Your task to perform on an android device: Open the calendar and show me this week's events? Image 0: 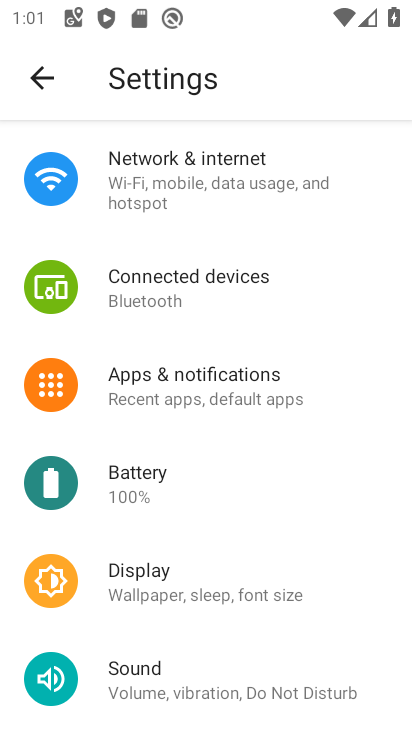
Step 0: press home button
Your task to perform on an android device: Open the calendar and show me this week's events? Image 1: 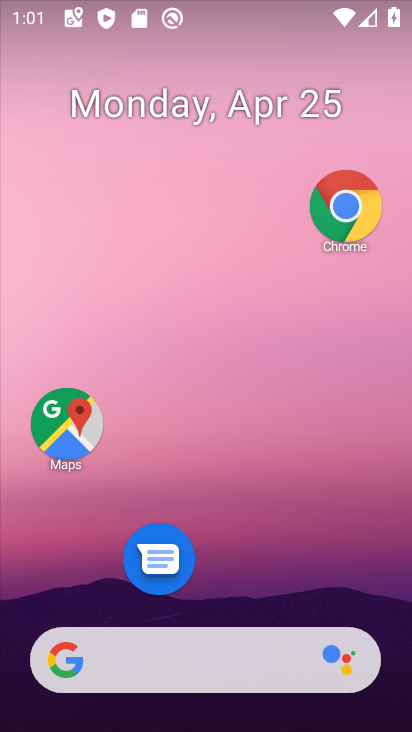
Step 1: drag from (247, 515) to (320, 64)
Your task to perform on an android device: Open the calendar and show me this week's events? Image 2: 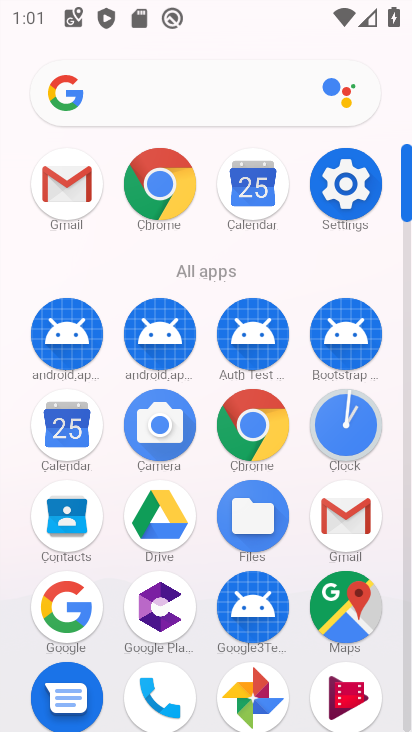
Step 2: click (63, 430)
Your task to perform on an android device: Open the calendar and show me this week's events? Image 3: 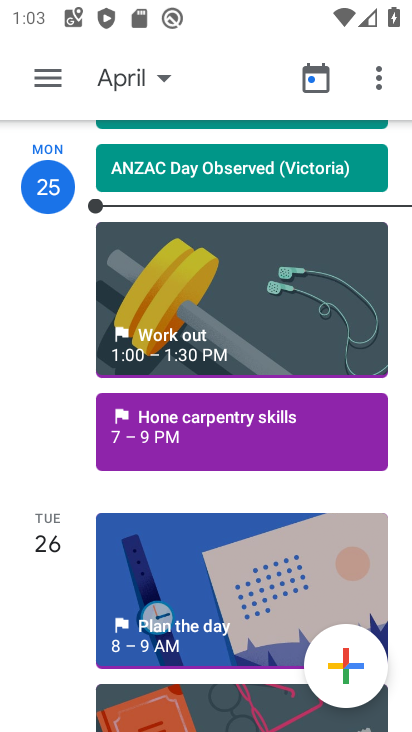
Step 3: task complete